Your task to perform on an android device: Open the Play Movies app and select the watchlist tab. Image 0: 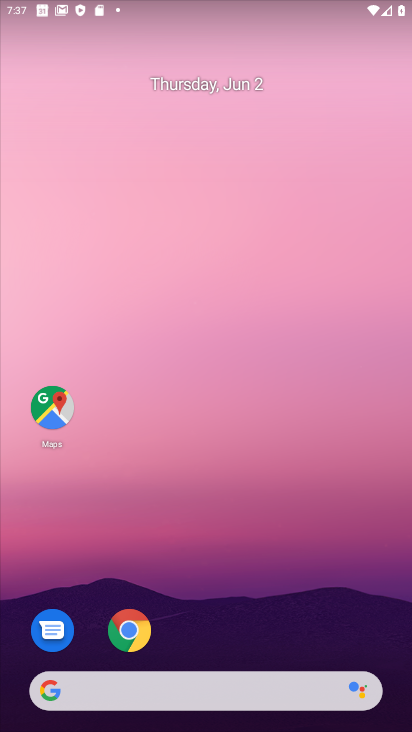
Step 0: drag from (121, 726) to (132, 126)
Your task to perform on an android device: Open the Play Movies app and select the watchlist tab. Image 1: 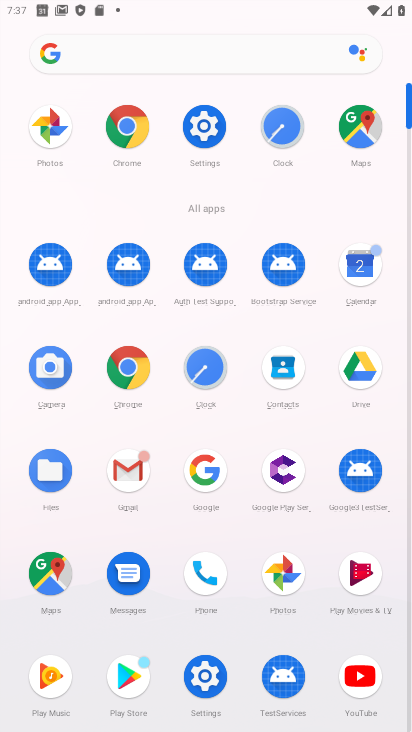
Step 1: click (356, 571)
Your task to perform on an android device: Open the Play Movies app and select the watchlist tab. Image 2: 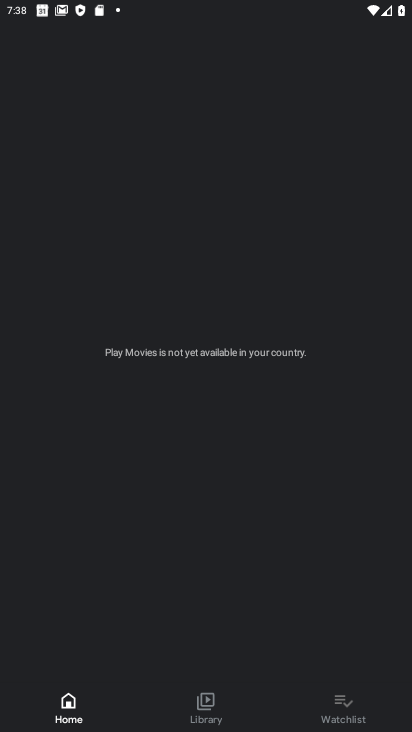
Step 2: click (350, 709)
Your task to perform on an android device: Open the Play Movies app and select the watchlist tab. Image 3: 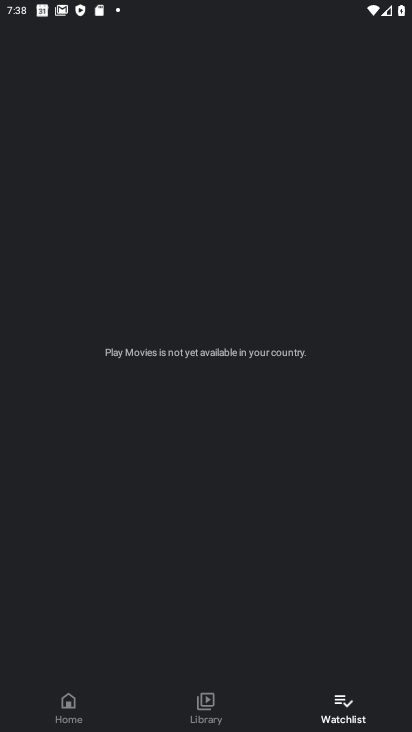
Step 3: task complete